Your task to perform on an android device: Open location settings Image 0: 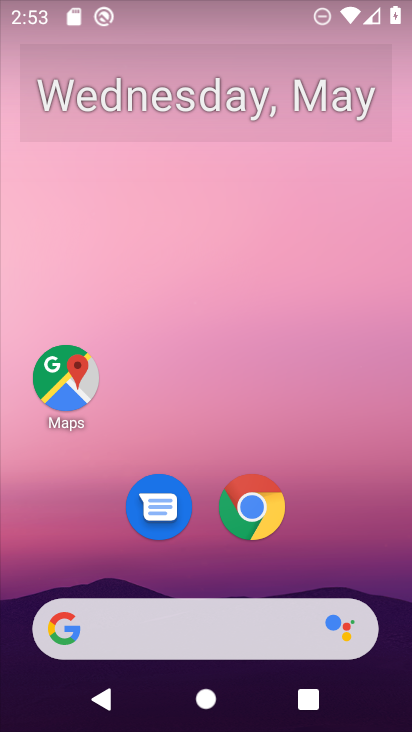
Step 0: drag from (198, 574) to (294, 7)
Your task to perform on an android device: Open location settings Image 1: 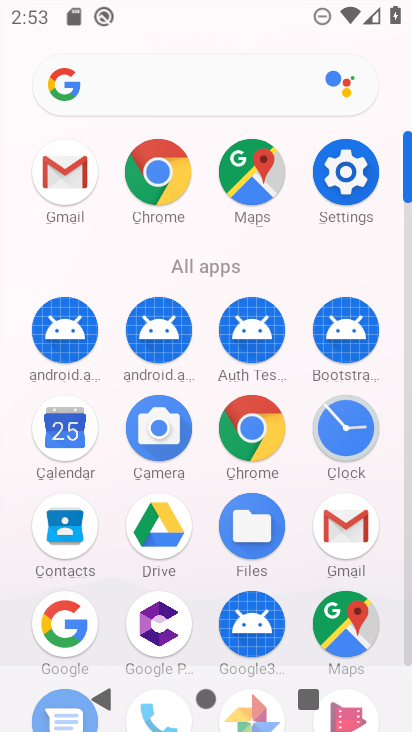
Step 1: click (355, 185)
Your task to perform on an android device: Open location settings Image 2: 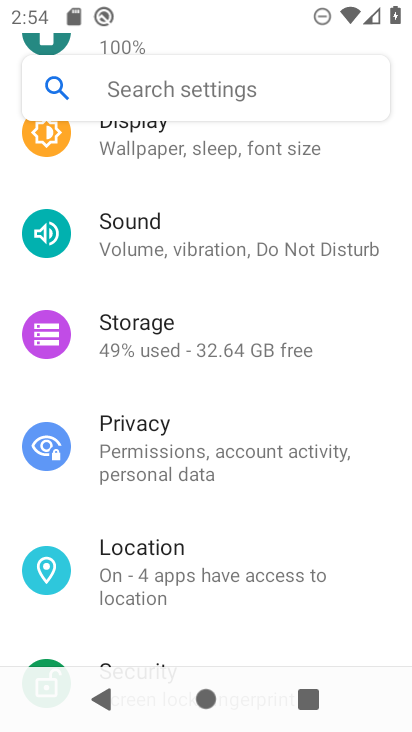
Step 2: click (160, 565)
Your task to perform on an android device: Open location settings Image 3: 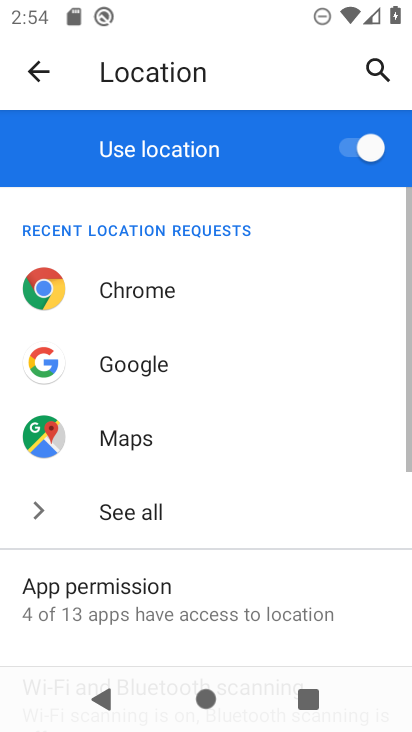
Step 3: drag from (161, 559) to (222, 196)
Your task to perform on an android device: Open location settings Image 4: 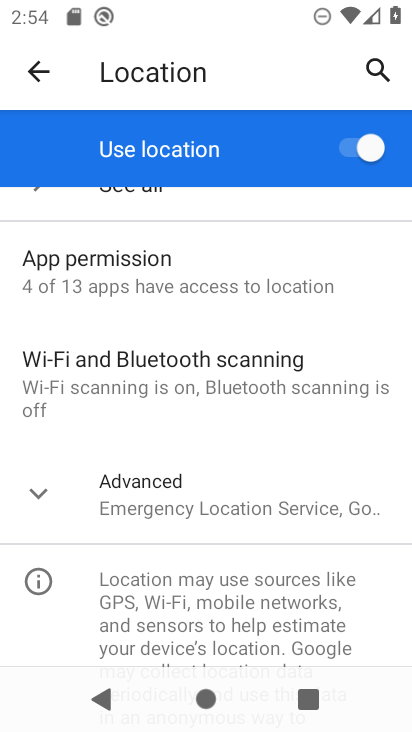
Step 4: click (194, 506)
Your task to perform on an android device: Open location settings Image 5: 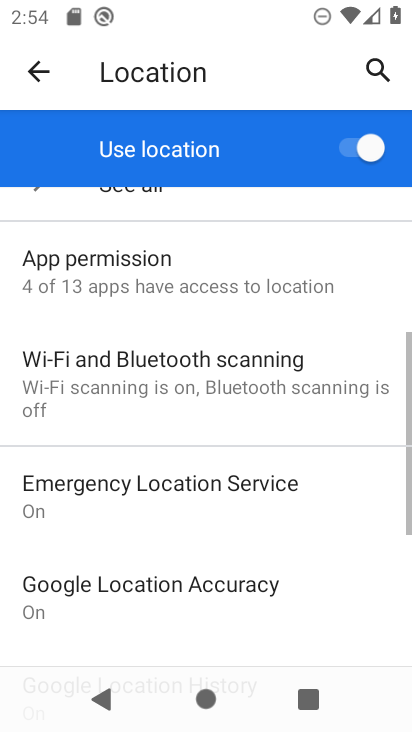
Step 5: task complete